Your task to perform on an android device: Open the phone app and click the voicemail tab. Image 0: 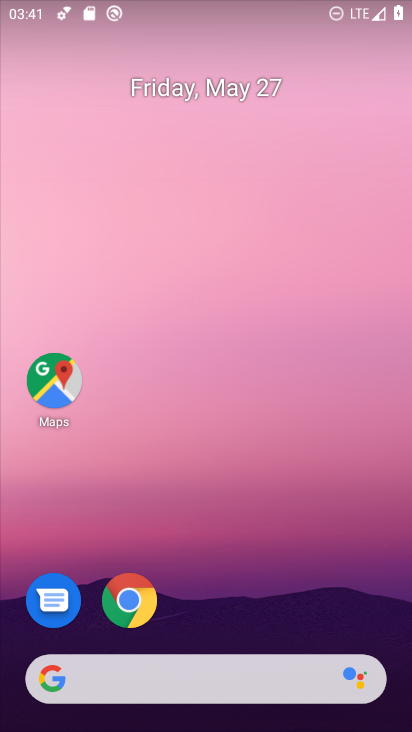
Step 0: drag from (214, 721) to (207, 189)
Your task to perform on an android device: Open the phone app and click the voicemail tab. Image 1: 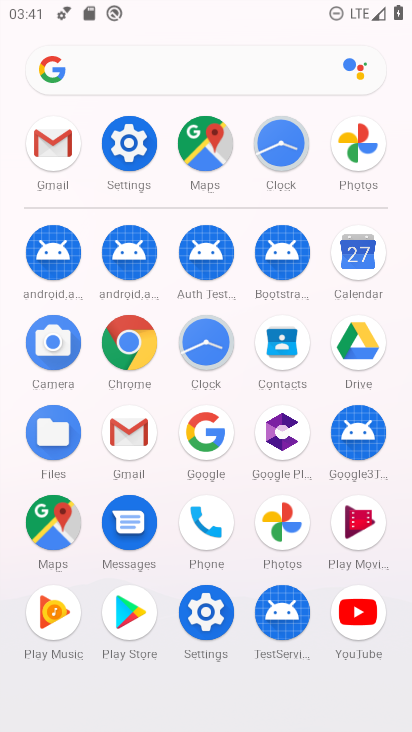
Step 1: click (201, 526)
Your task to perform on an android device: Open the phone app and click the voicemail tab. Image 2: 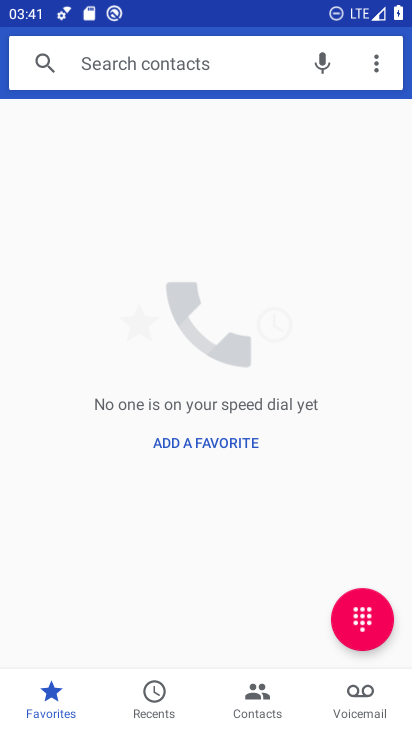
Step 2: click (358, 703)
Your task to perform on an android device: Open the phone app and click the voicemail tab. Image 3: 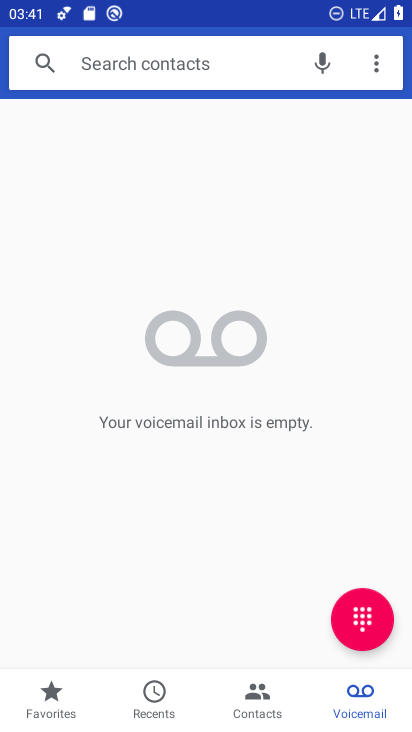
Step 3: task complete